Your task to perform on an android device: Open Youtube and go to "Your channel" Image 0: 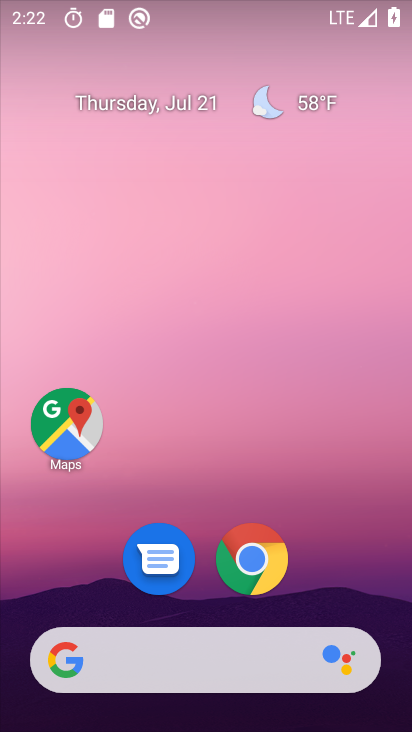
Step 0: drag from (340, 573) to (379, 166)
Your task to perform on an android device: Open Youtube and go to "Your channel" Image 1: 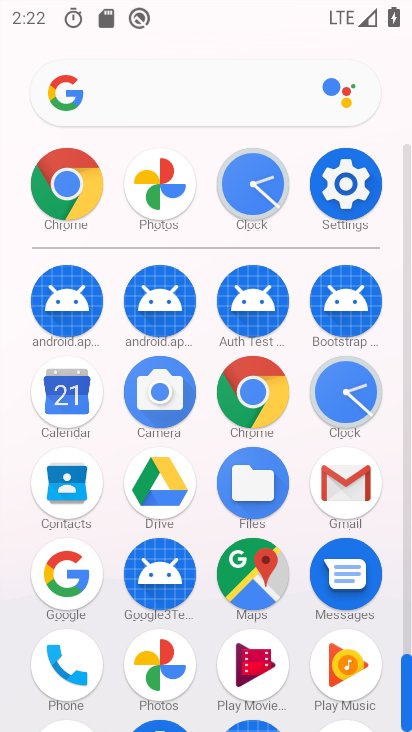
Step 1: drag from (394, 502) to (399, 301)
Your task to perform on an android device: Open Youtube and go to "Your channel" Image 2: 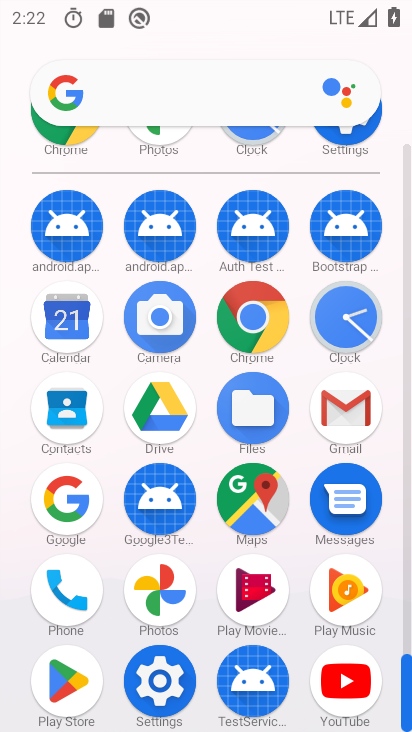
Step 2: click (348, 681)
Your task to perform on an android device: Open Youtube and go to "Your channel" Image 3: 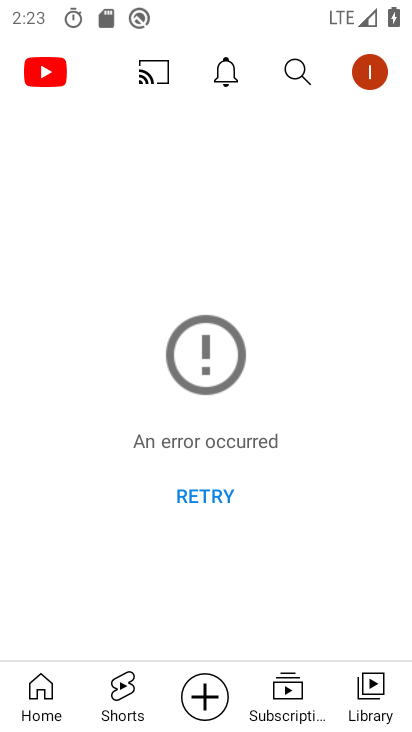
Step 3: click (369, 77)
Your task to perform on an android device: Open Youtube and go to "Your channel" Image 4: 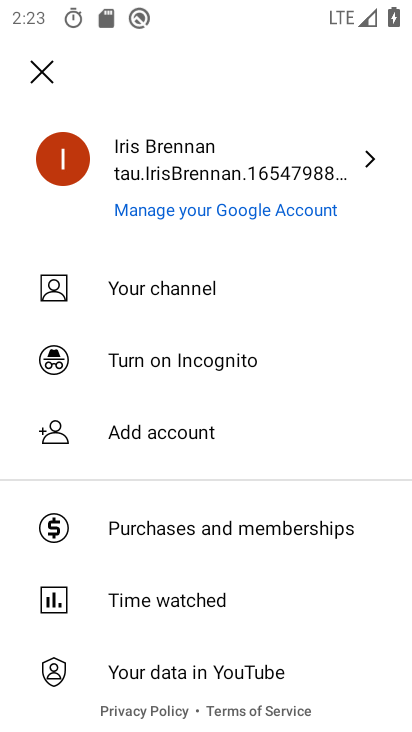
Step 4: click (250, 287)
Your task to perform on an android device: Open Youtube and go to "Your channel" Image 5: 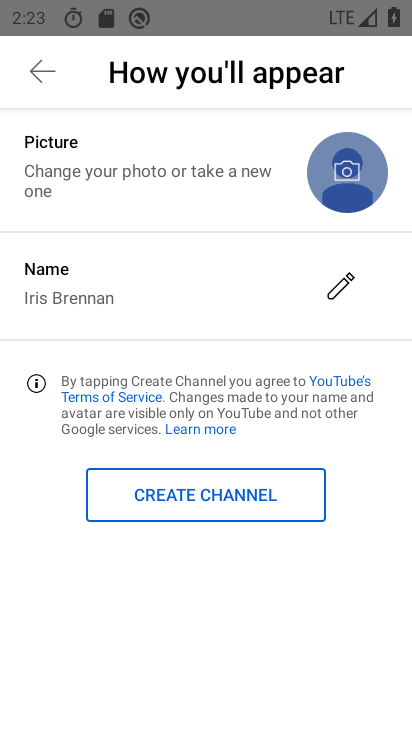
Step 5: task complete